Your task to perform on an android device: toggle notification dots Image 0: 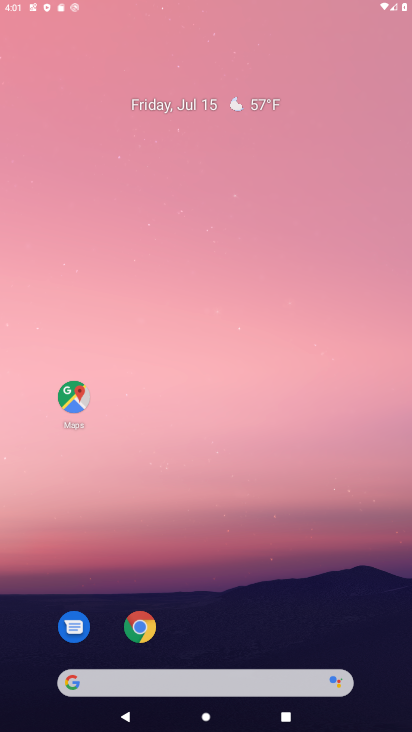
Step 0: press home button
Your task to perform on an android device: toggle notification dots Image 1: 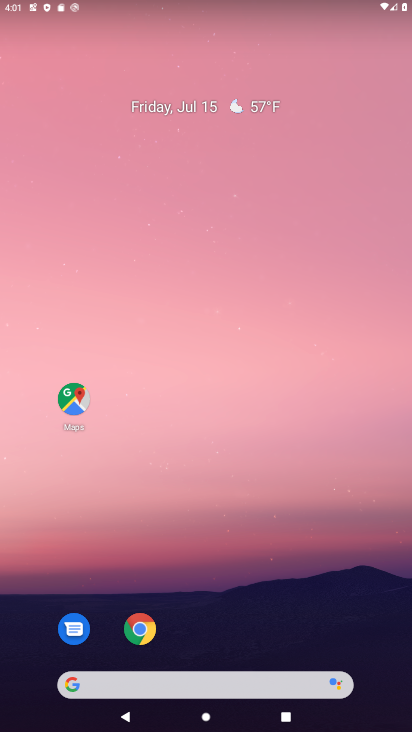
Step 1: drag from (338, 617) to (325, 94)
Your task to perform on an android device: toggle notification dots Image 2: 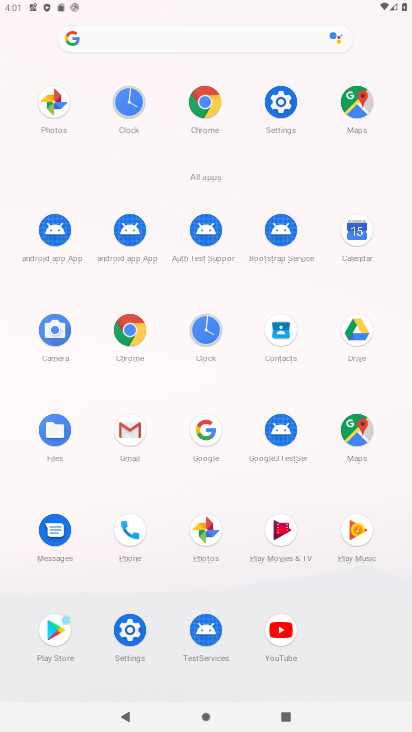
Step 2: click (287, 101)
Your task to perform on an android device: toggle notification dots Image 3: 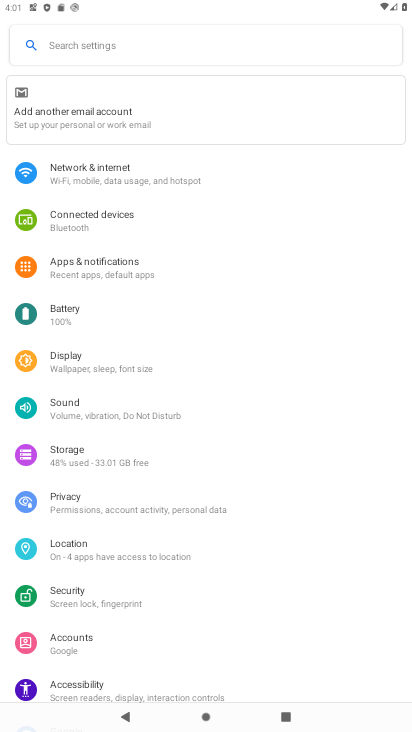
Step 3: click (77, 272)
Your task to perform on an android device: toggle notification dots Image 4: 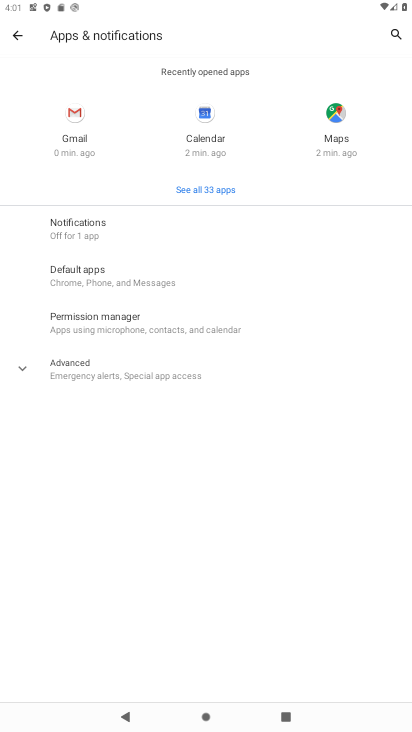
Step 4: click (84, 230)
Your task to perform on an android device: toggle notification dots Image 5: 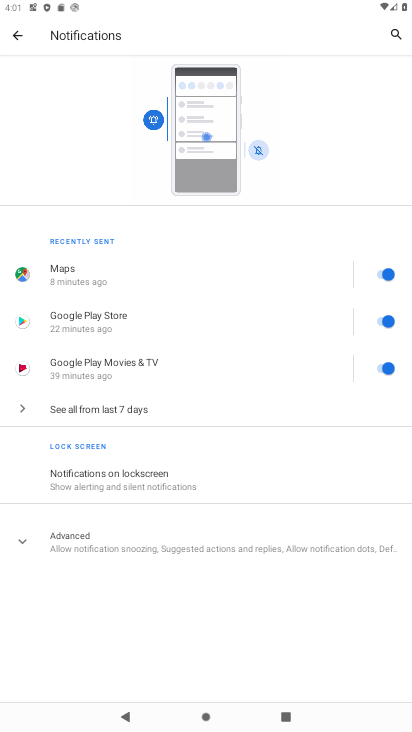
Step 5: click (25, 538)
Your task to perform on an android device: toggle notification dots Image 6: 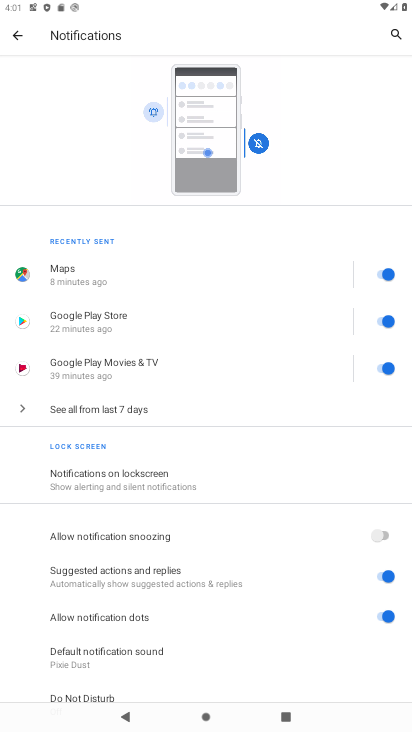
Step 6: click (380, 611)
Your task to perform on an android device: toggle notification dots Image 7: 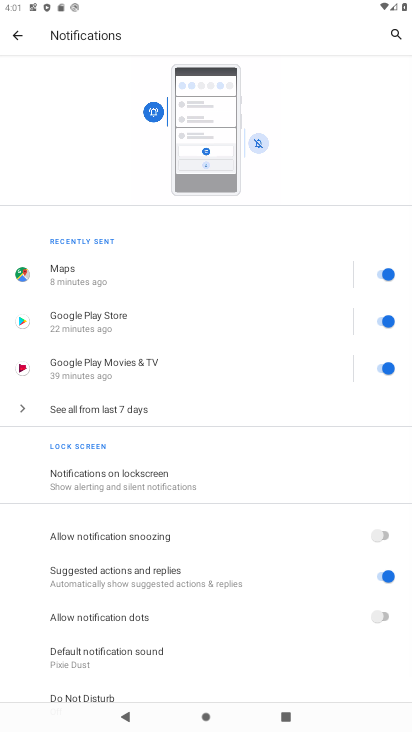
Step 7: task complete